Your task to perform on an android device: turn on priority inbox in the gmail app Image 0: 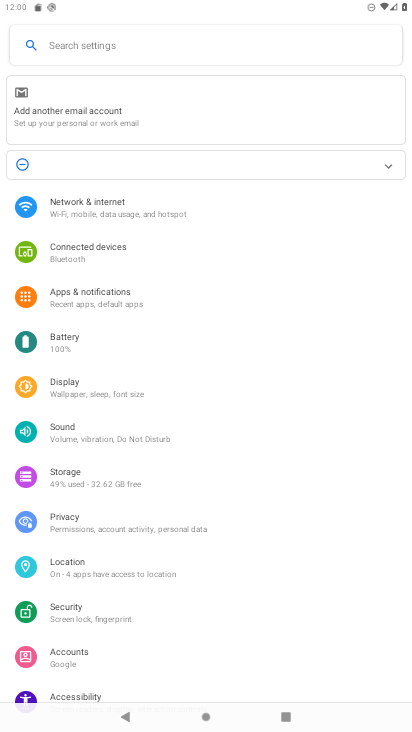
Step 0: press home button
Your task to perform on an android device: turn on priority inbox in the gmail app Image 1: 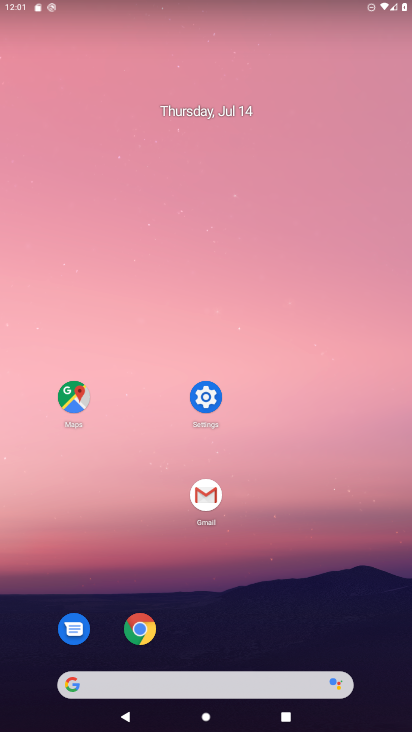
Step 1: click (202, 502)
Your task to perform on an android device: turn on priority inbox in the gmail app Image 2: 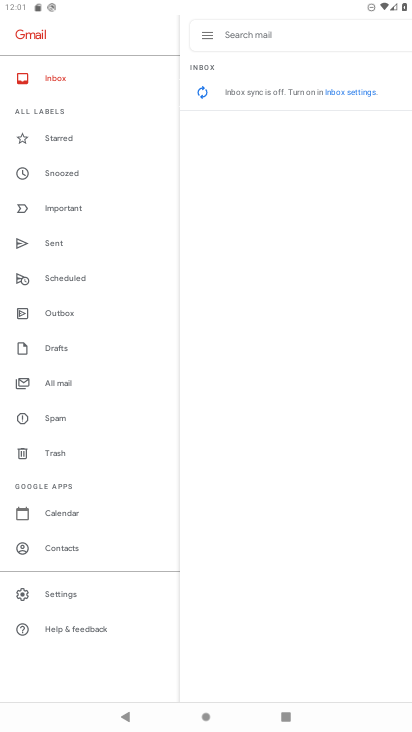
Step 2: click (58, 591)
Your task to perform on an android device: turn on priority inbox in the gmail app Image 3: 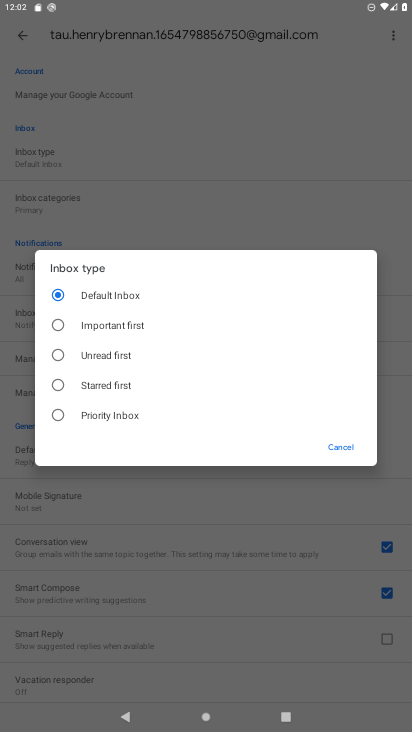
Step 3: click (63, 408)
Your task to perform on an android device: turn on priority inbox in the gmail app Image 4: 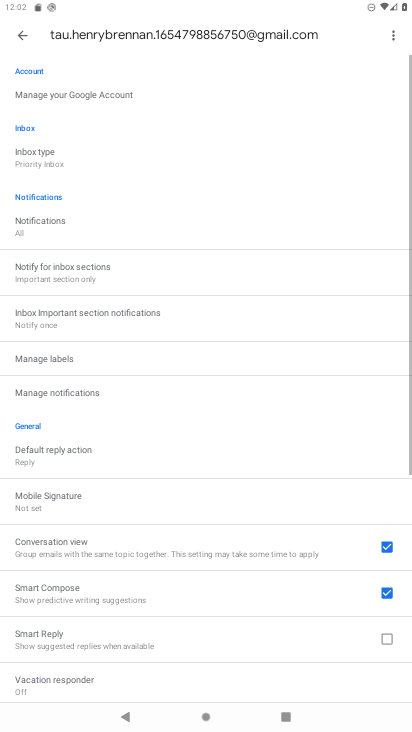
Step 4: task complete